Your task to perform on an android device: Open internet settings Image 0: 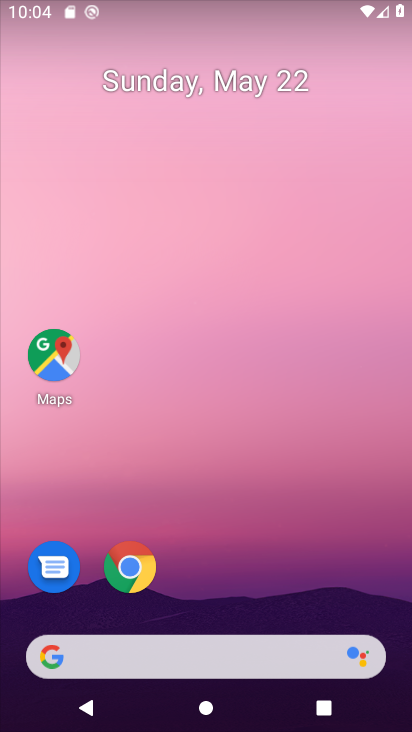
Step 0: drag from (194, 667) to (159, 51)
Your task to perform on an android device: Open internet settings Image 1: 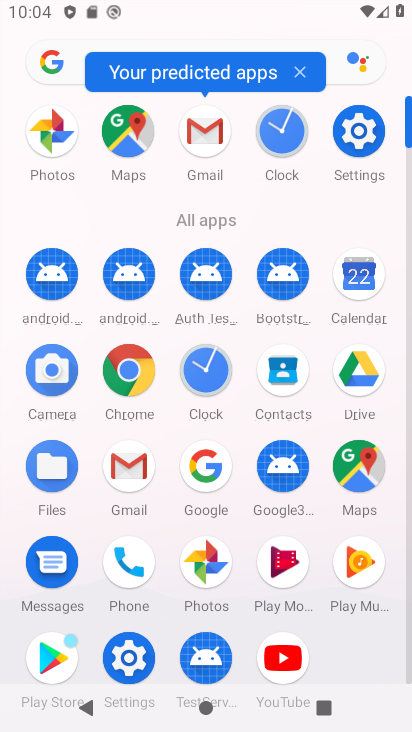
Step 1: click (365, 128)
Your task to perform on an android device: Open internet settings Image 2: 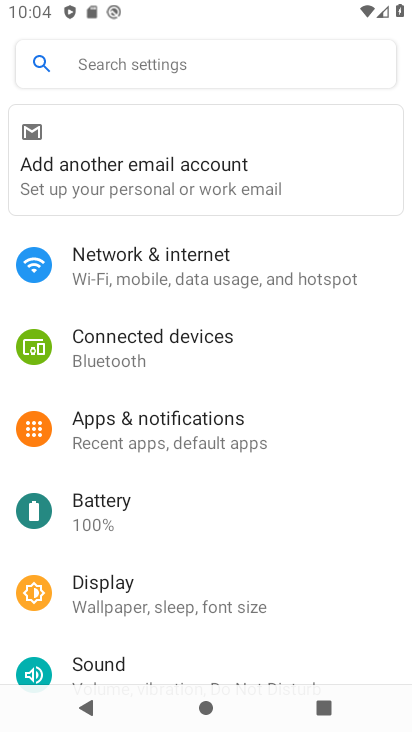
Step 2: click (132, 269)
Your task to perform on an android device: Open internet settings Image 3: 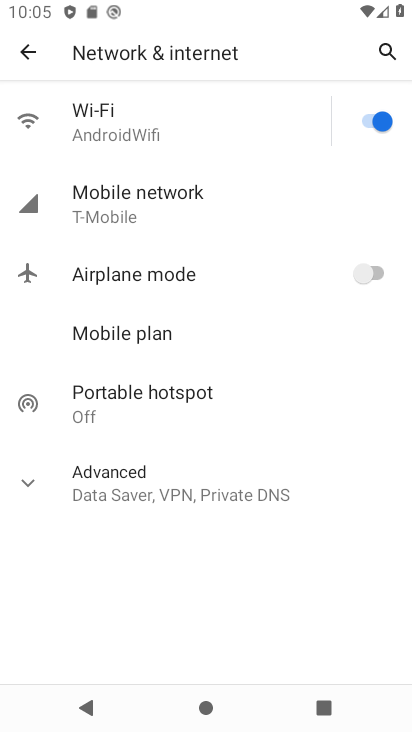
Step 3: task complete